Your task to perform on an android device: Open Google Chrome and click the shortcut for Amazon.com Image 0: 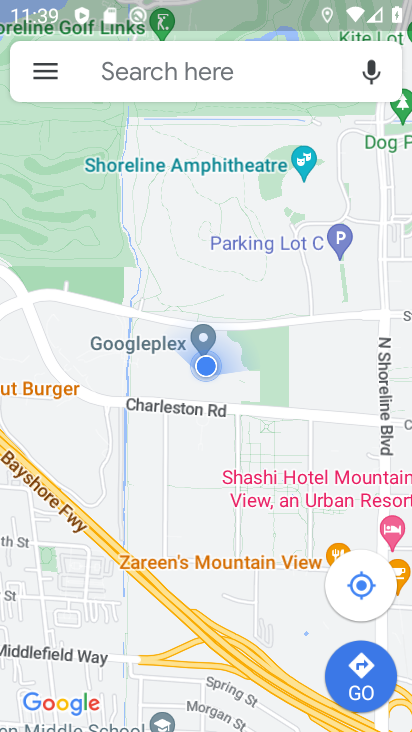
Step 0: drag from (237, 600) to (251, 175)
Your task to perform on an android device: Open Google Chrome and click the shortcut for Amazon.com Image 1: 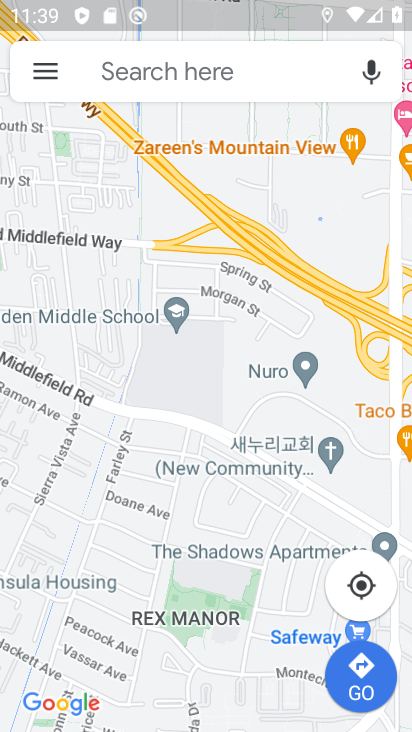
Step 1: press home button
Your task to perform on an android device: Open Google Chrome and click the shortcut for Amazon.com Image 2: 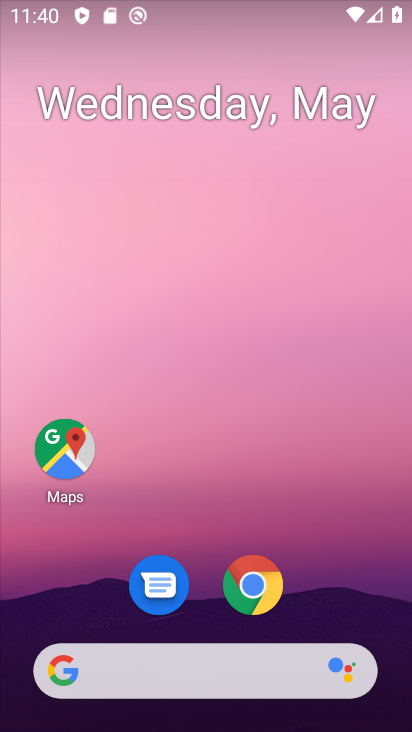
Step 2: click (260, 578)
Your task to perform on an android device: Open Google Chrome and click the shortcut for Amazon.com Image 3: 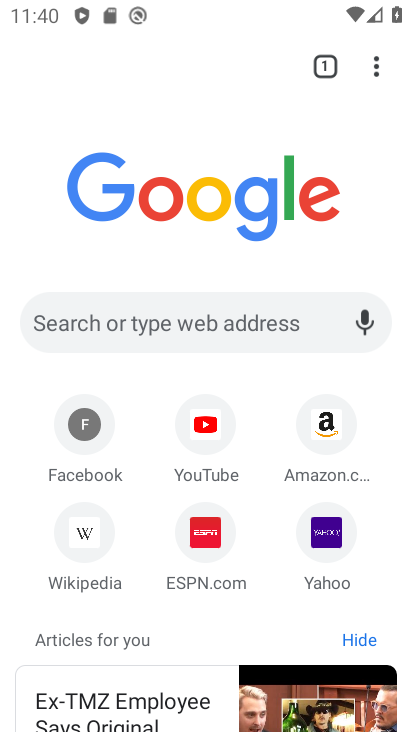
Step 3: click (327, 426)
Your task to perform on an android device: Open Google Chrome and click the shortcut for Amazon.com Image 4: 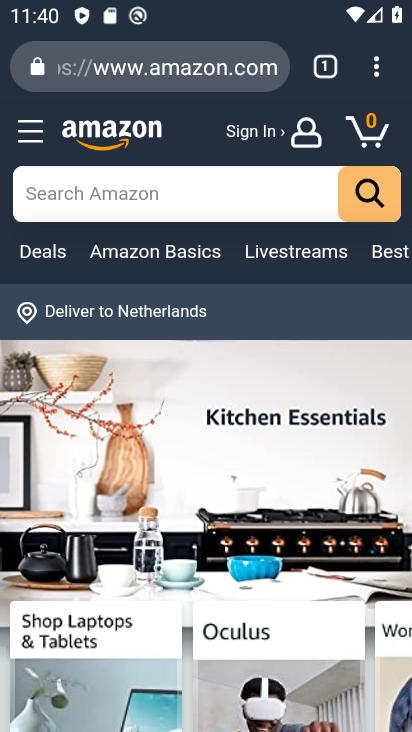
Step 4: task complete